Your task to perform on an android device: clear all cookies in the chrome app Image 0: 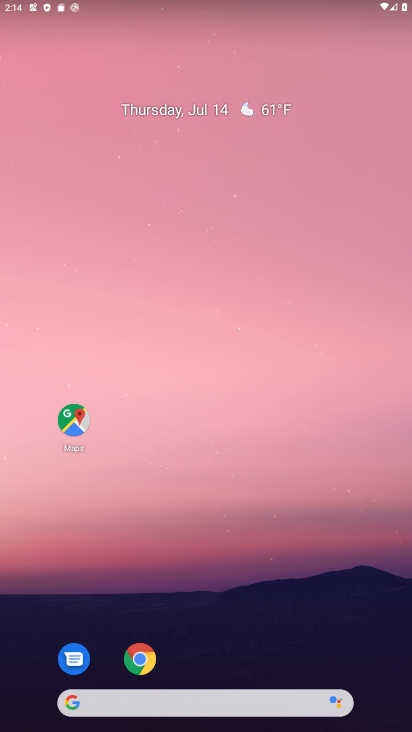
Step 0: click (145, 660)
Your task to perform on an android device: clear all cookies in the chrome app Image 1: 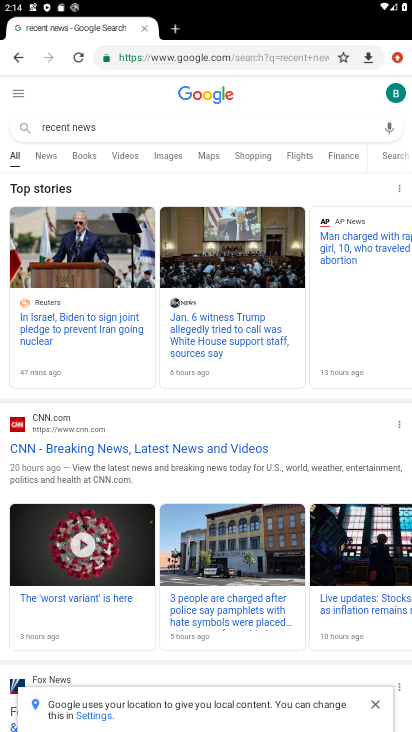
Step 1: click (396, 60)
Your task to perform on an android device: clear all cookies in the chrome app Image 2: 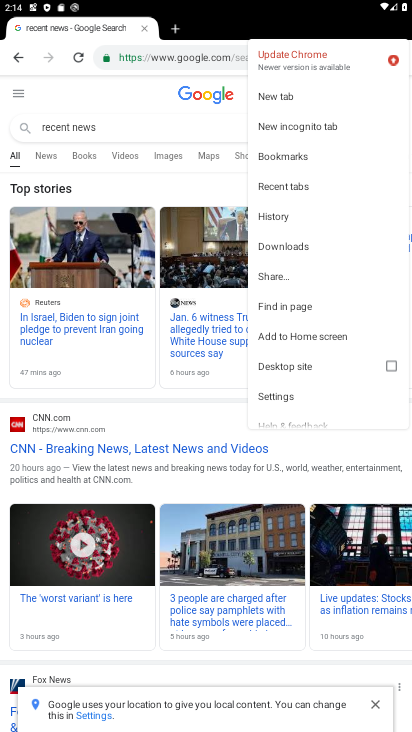
Step 2: click (331, 217)
Your task to perform on an android device: clear all cookies in the chrome app Image 3: 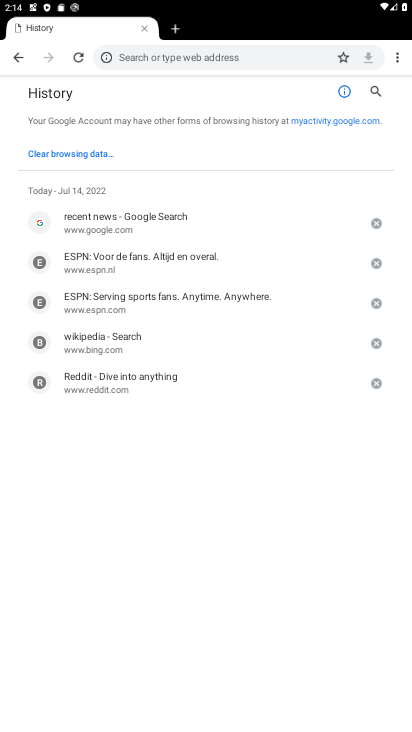
Step 3: click (94, 157)
Your task to perform on an android device: clear all cookies in the chrome app Image 4: 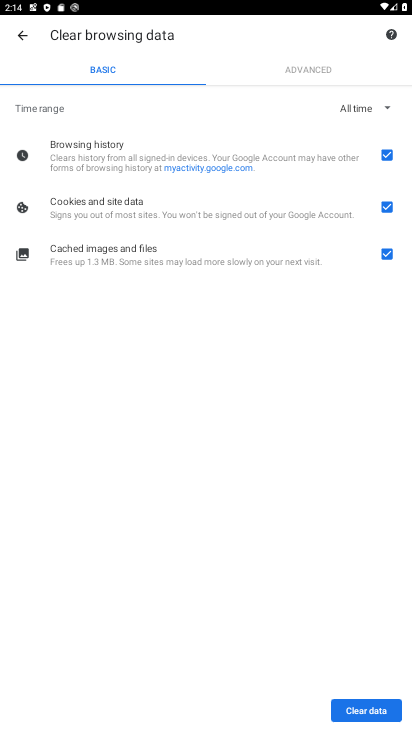
Step 4: click (380, 251)
Your task to perform on an android device: clear all cookies in the chrome app Image 5: 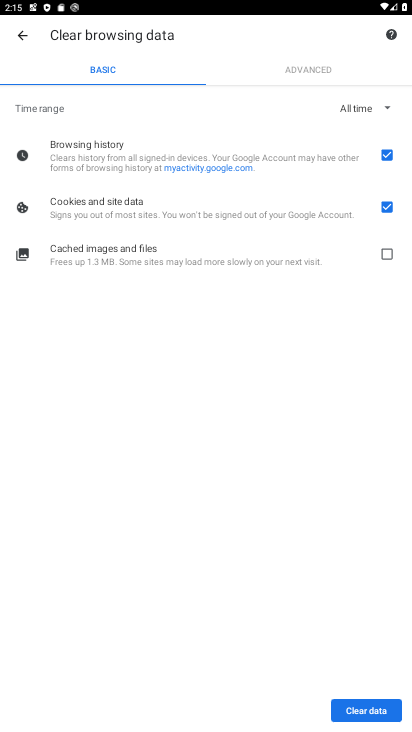
Step 5: click (388, 147)
Your task to perform on an android device: clear all cookies in the chrome app Image 6: 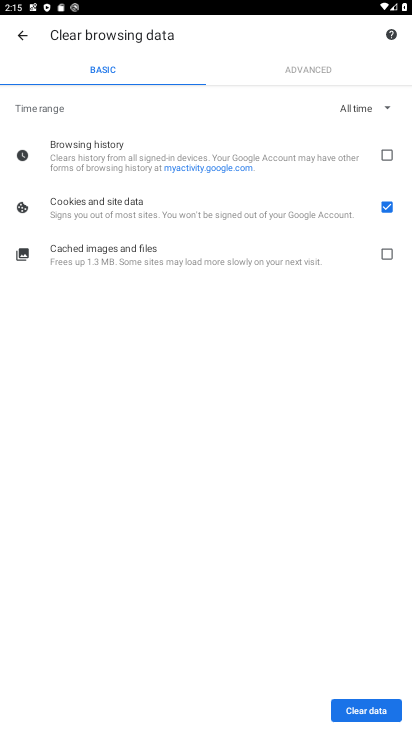
Step 6: click (371, 705)
Your task to perform on an android device: clear all cookies in the chrome app Image 7: 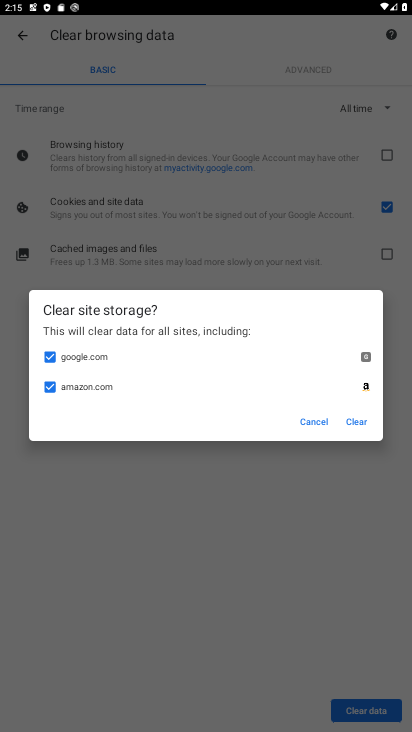
Step 7: click (364, 422)
Your task to perform on an android device: clear all cookies in the chrome app Image 8: 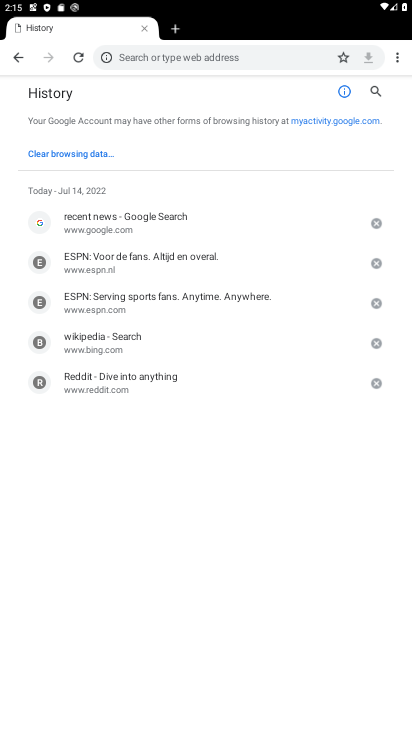
Step 8: task complete